Your task to perform on an android device: check battery use Image 0: 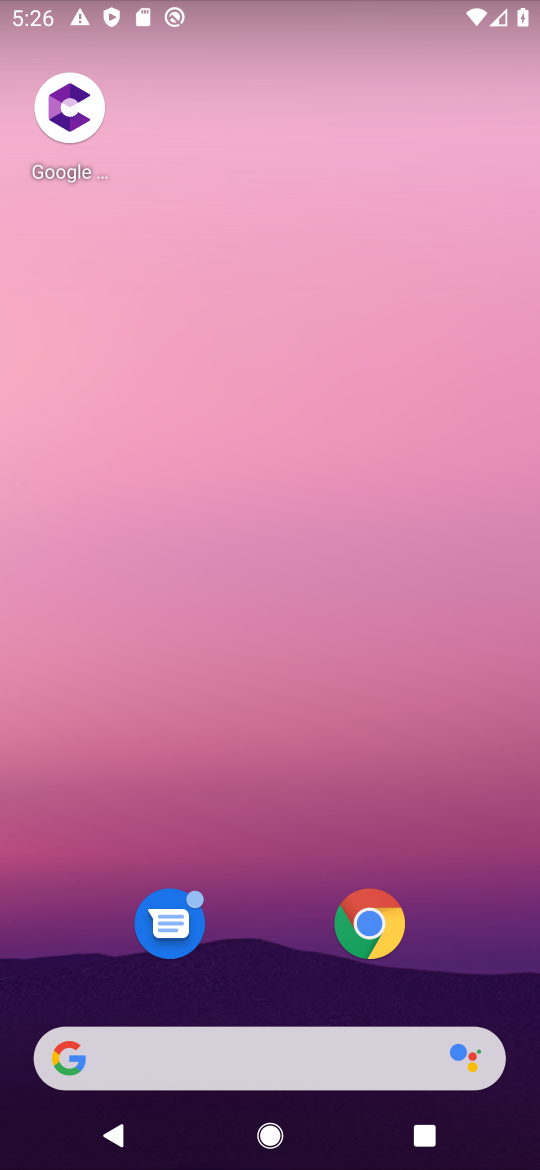
Step 0: drag from (494, 930) to (426, 353)
Your task to perform on an android device: check battery use Image 1: 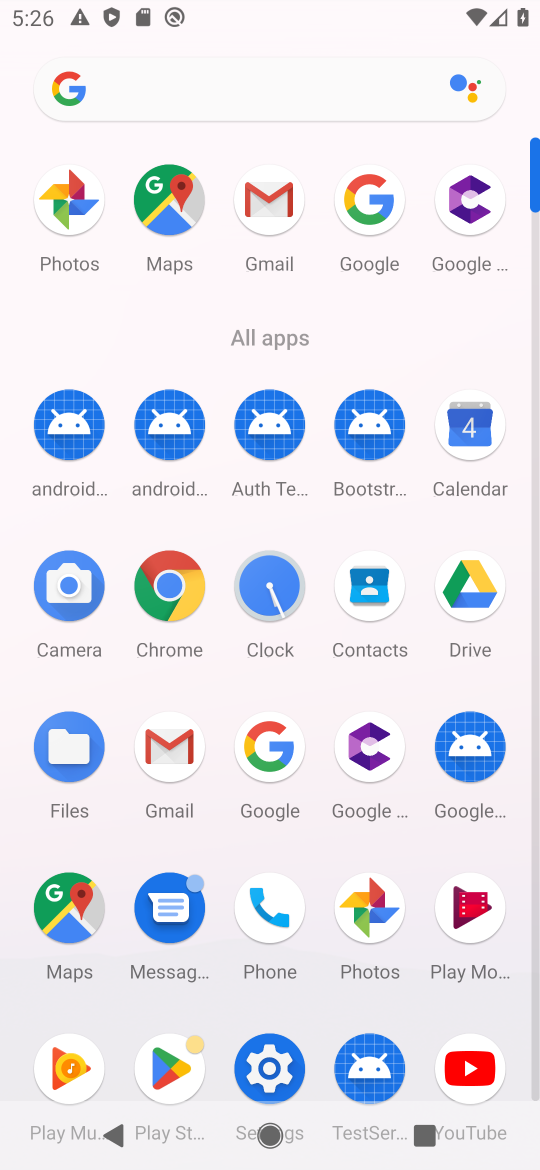
Step 1: click (252, 1071)
Your task to perform on an android device: check battery use Image 2: 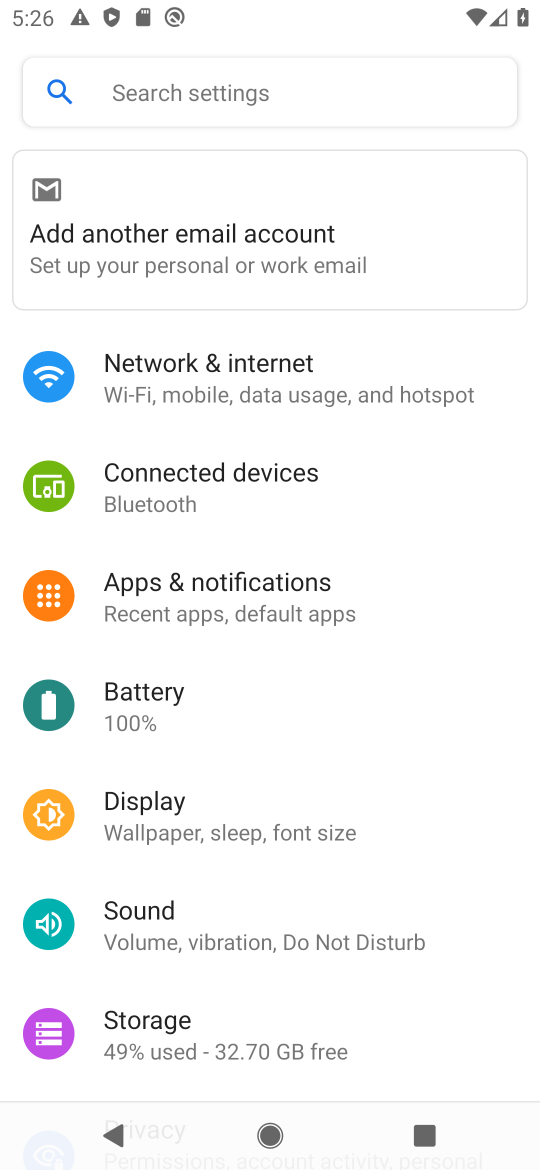
Step 2: click (156, 688)
Your task to perform on an android device: check battery use Image 3: 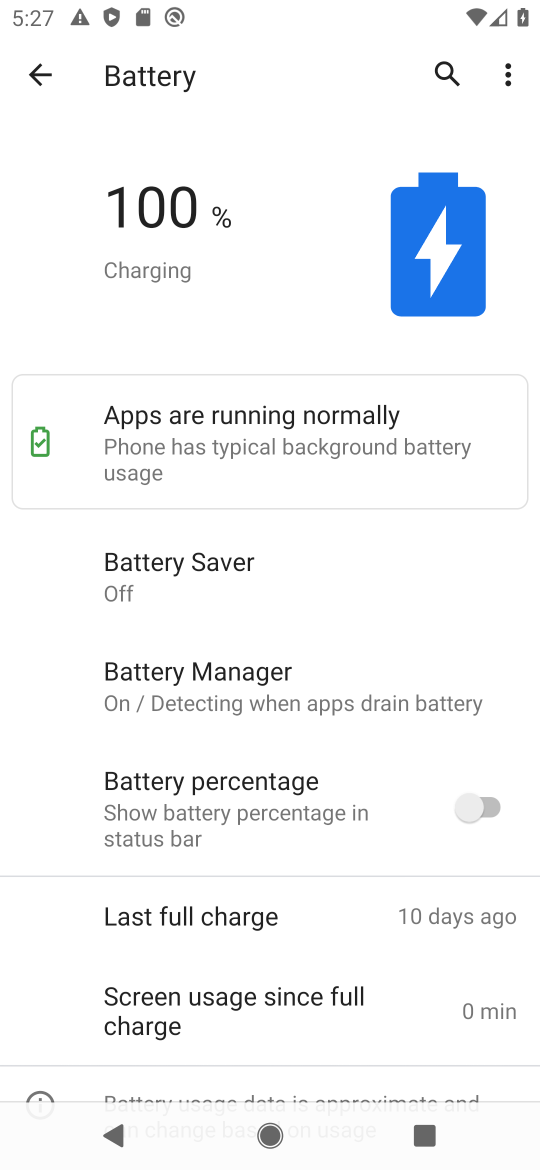
Step 3: click (512, 84)
Your task to perform on an android device: check battery use Image 4: 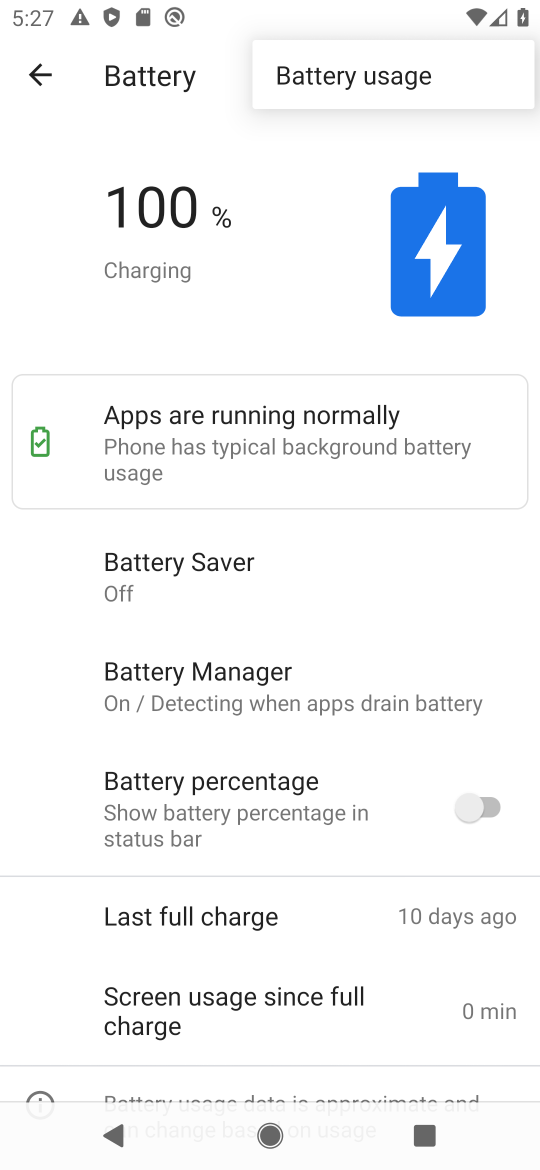
Step 4: click (416, 77)
Your task to perform on an android device: check battery use Image 5: 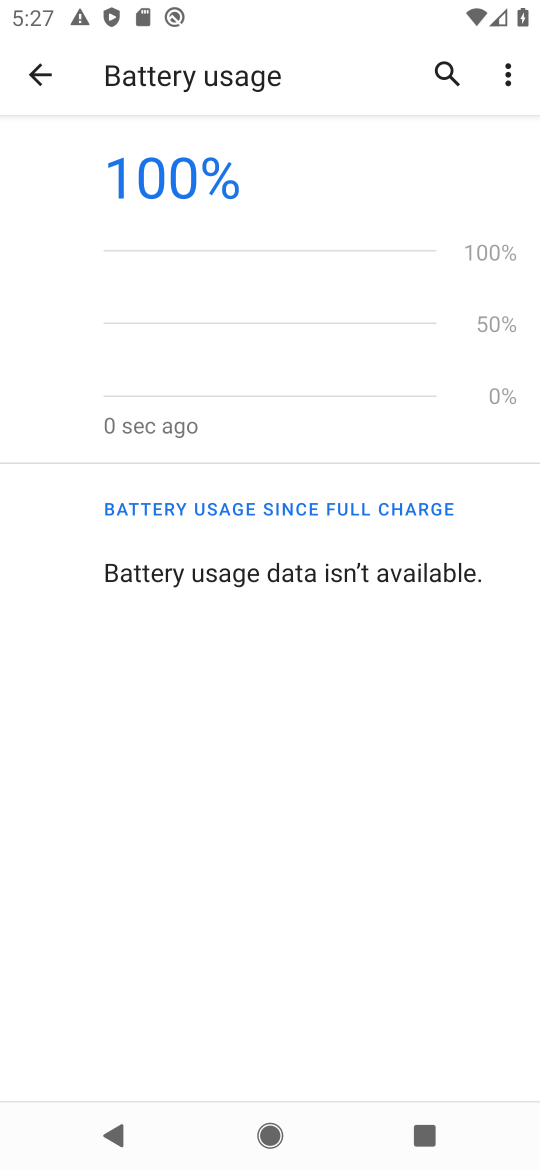
Step 5: task complete